Your task to perform on an android device: toggle location history Image 0: 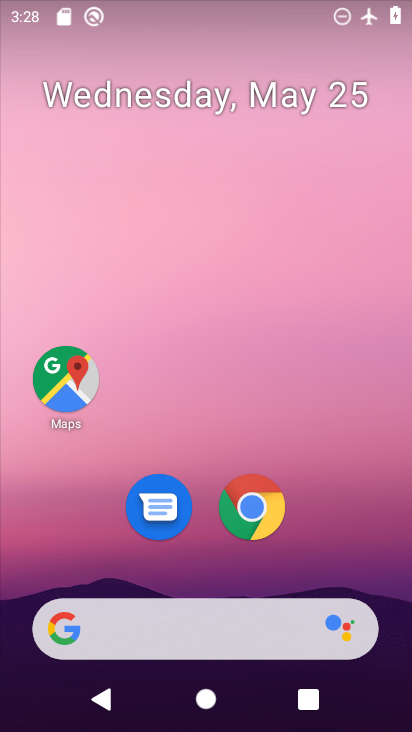
Step 0: drag from (173, 696) to (175, 190)
Your task to perform on an android device: toggle location history Image 1: 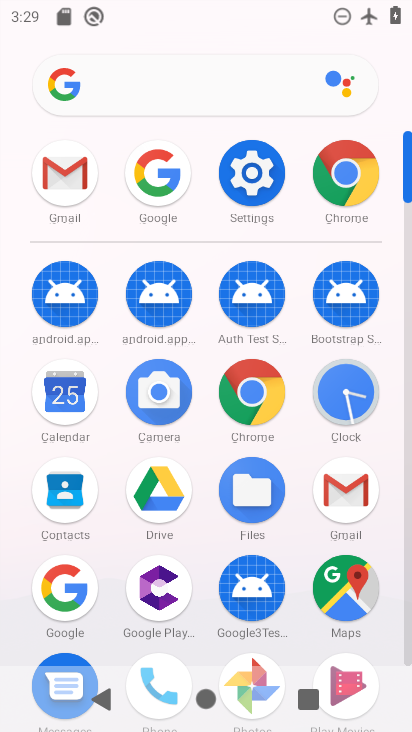
Step 1: click (257, 186)
Your task to perform on an android device: toggle location history Image 2: 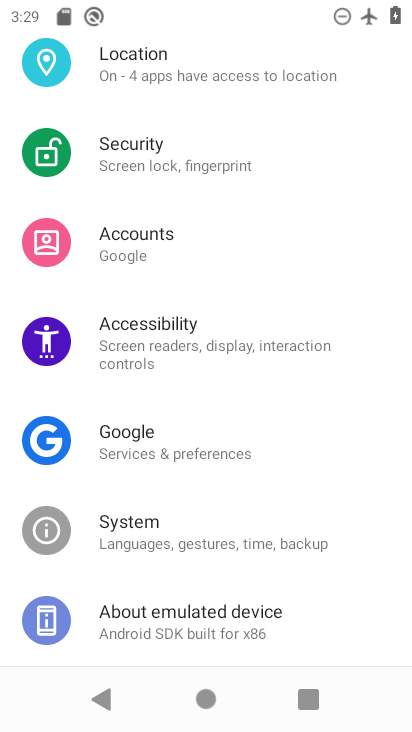
Step 2: drag from (232, 237) to (222, 616)
Your task to perform on an android device: toggle location history Image 3: 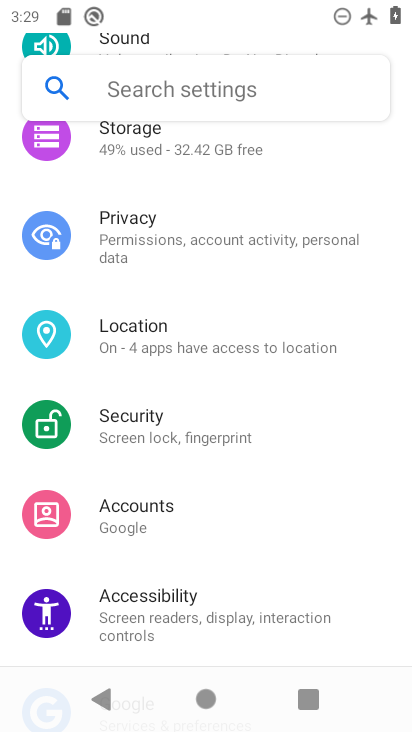
Step 3: click (254, 341)
Your task to perform on an android device: toggle location history Image 4: 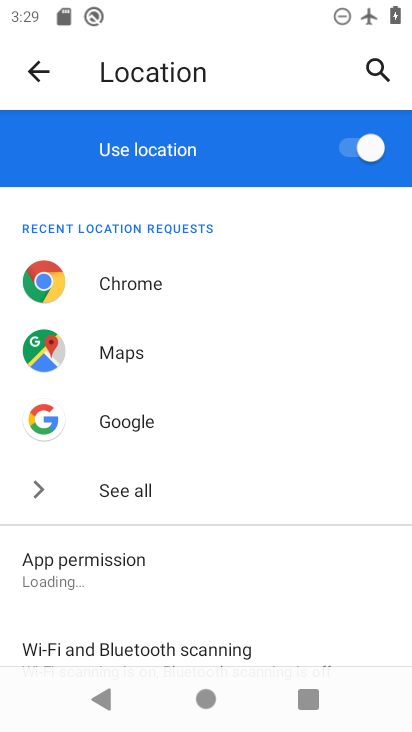
Step 4: drag from (254, 578) to (292, 330)
Your task to perform on an android device: toggle location history Image 5: 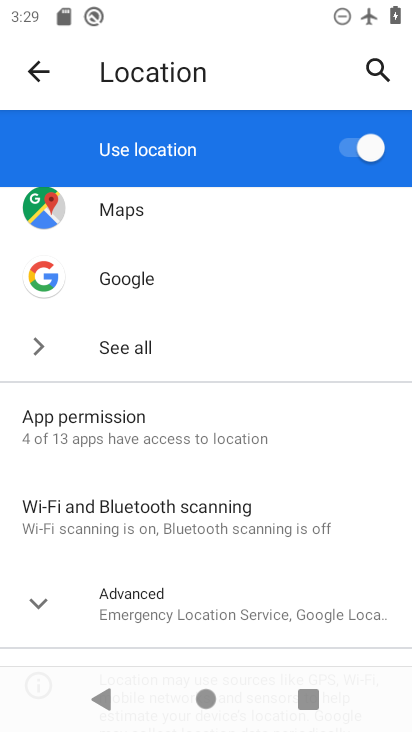
Step 5: click (214, 603)
Your task to perform on an android device: toggle location history Image 6: 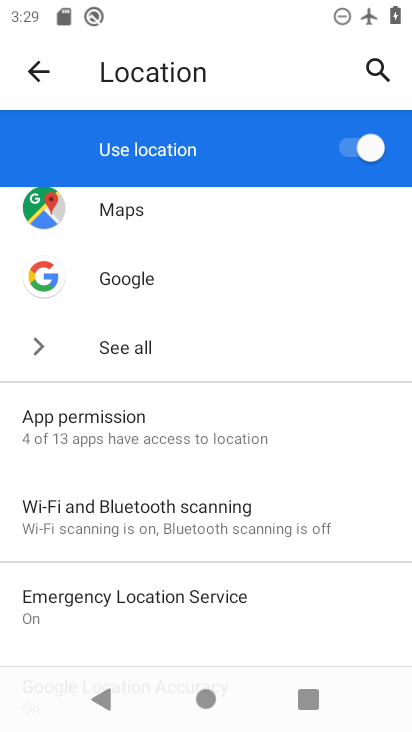
Step 6: drag from (200, 564) to (225, 267)
Your task to perform on an android device: toggle location history Image 7: 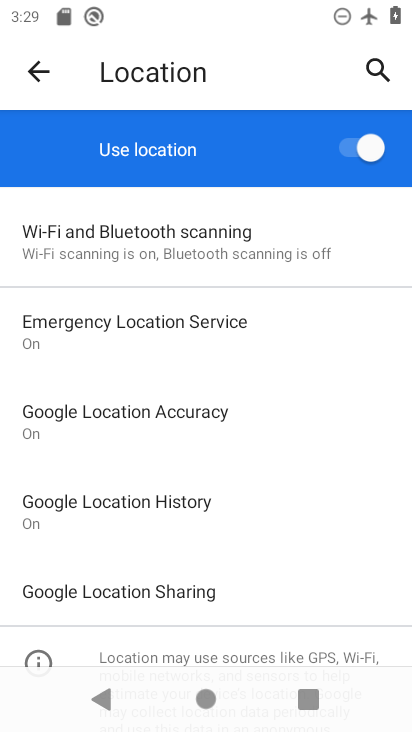
Step 7: click (182, 505)
Your task to perform on an android device: toggle location history Image 8: 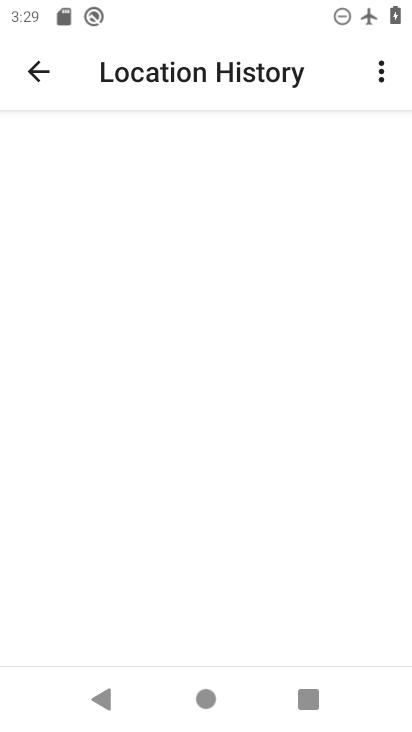
Step 8: task complete